Your task to perform on an android device: check google app version Image 0: 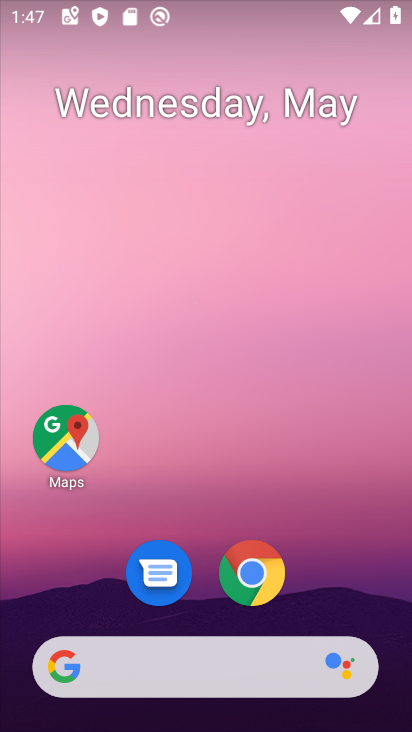
Step 0: drag from (312, 601) to (339, 5)
Your task to perform on an android device: check google app version Image 1: 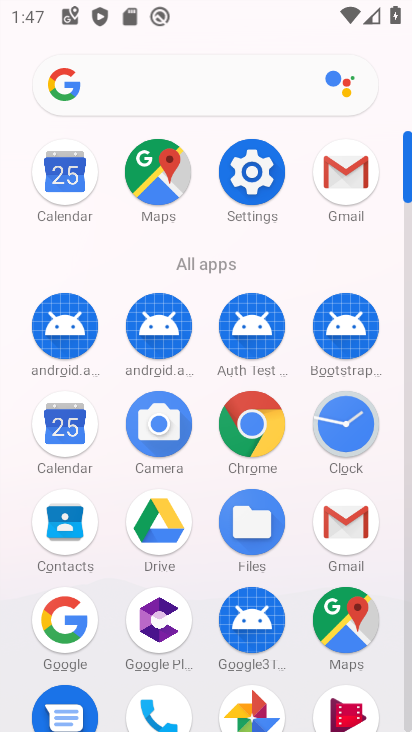
Step 1: click (76, 620)
Your task to perform on an android device: check google app version Image 2: 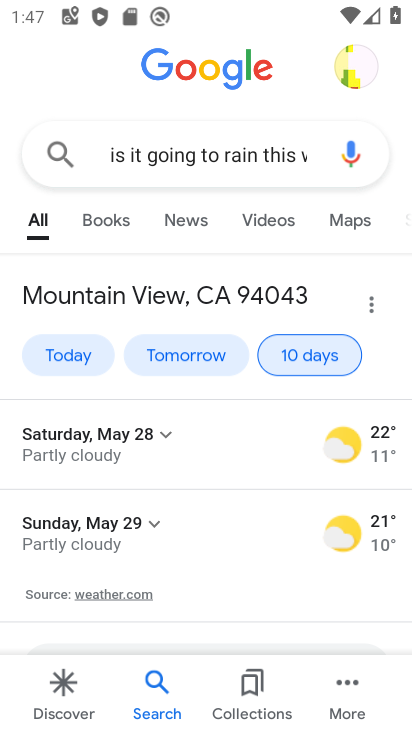
Step 2: click (328, 680)
Your task to perform on an android device: check google app version Image 3: 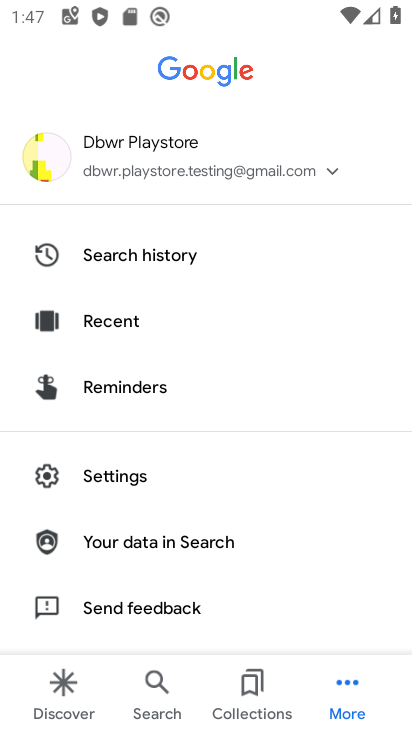
Step 3: click (102, 468)
Your task to perform on an android device: check google app version Image 4: 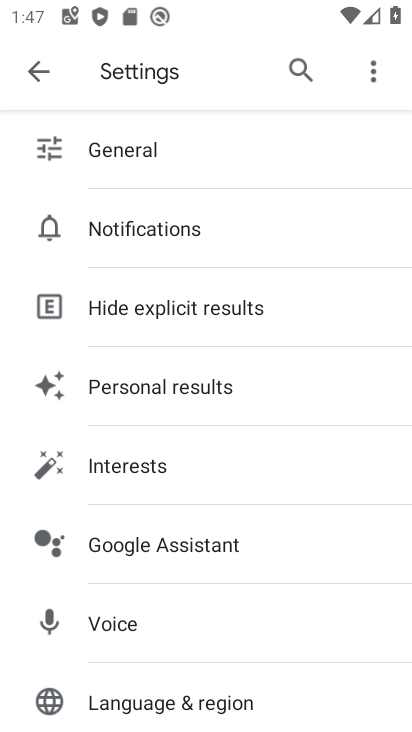
Step 4: drag from (183, 629) to (286, 198)
Your task to perform on an android device: check google app version Image 5: 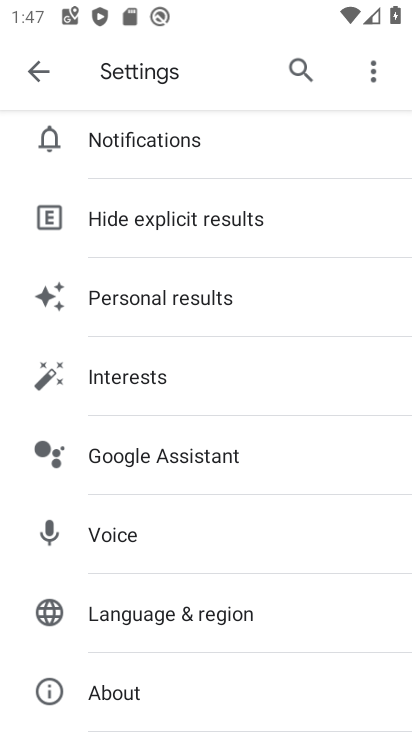
Step 5: click (101, 700)
Your task to perform on an android device: check google app version Image 6: 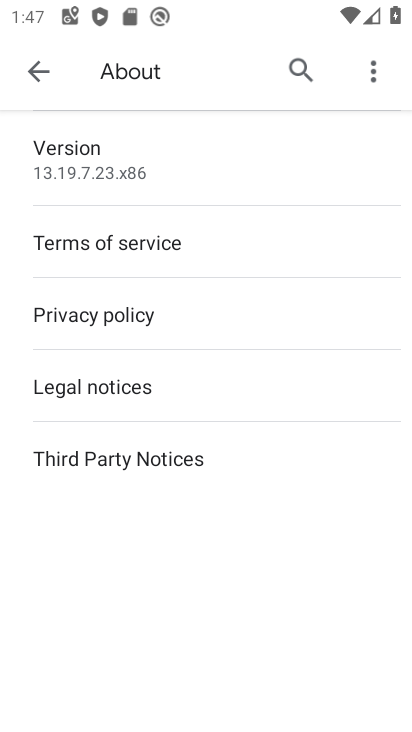
Step 6: click (68, 158)
Your task to perform on an android device: check google app version Image 7: 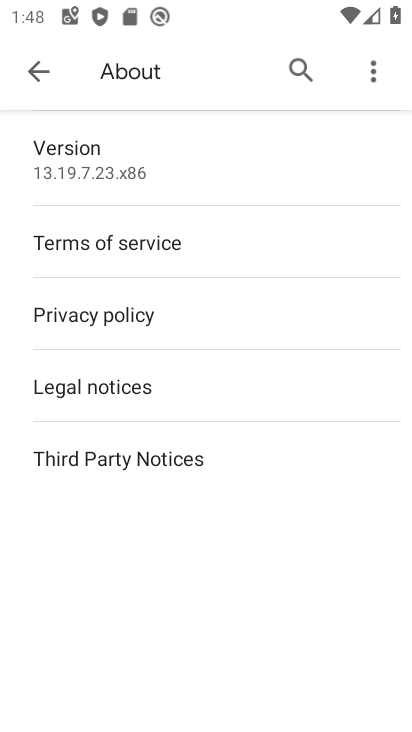
Step 7: task complete